Your task to perform on an android device: turn on the 24-hour format for clock Image 0: 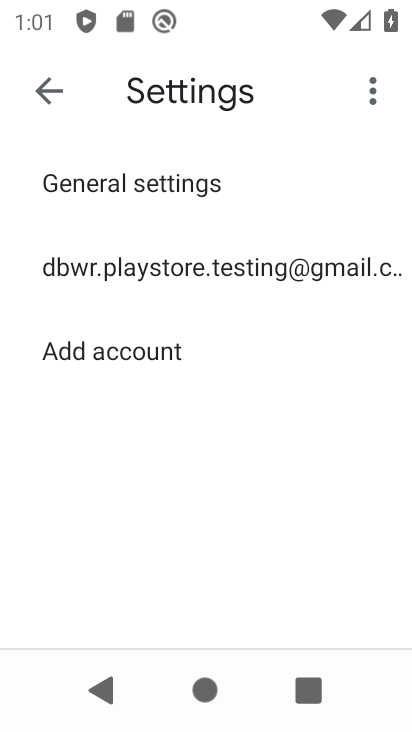
Step 0: press home button
Your task to perform on an android device: turn on the 24-hour format for clock Image 1: 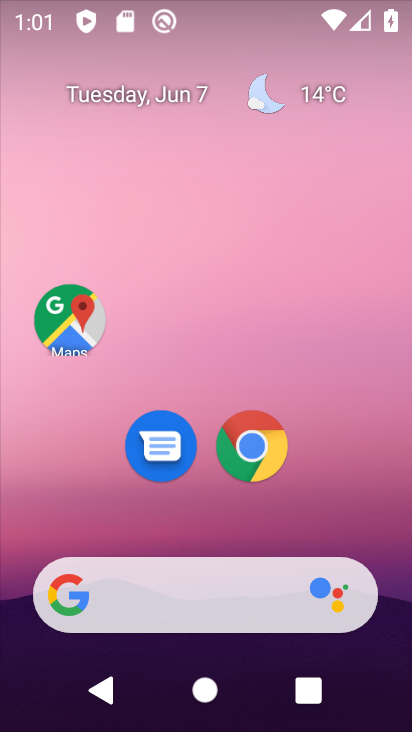
Step 1: drag from (377, 544) to (263, 92)
Your task to perform on an android device: turn on the 24-hour format for clock Image 2: 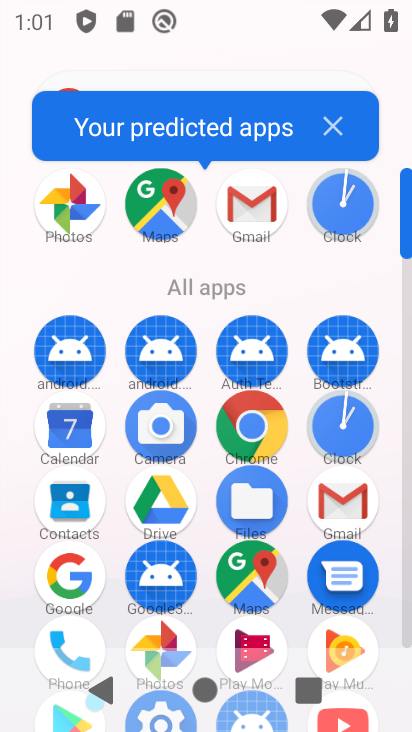
Step 2: click (353, 226)
Your task to perform on an android device: turn on the 24-hour format for clock Image 3: 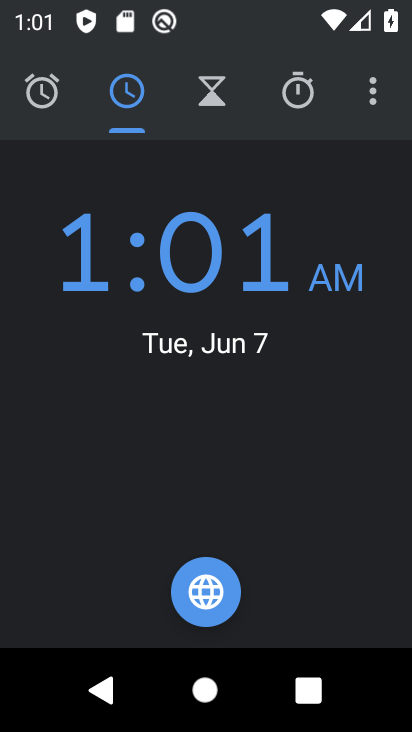
Step 3: click (380, 104)
Your task to perform on an android device: turn on the 24-hour format for clock Image 4: 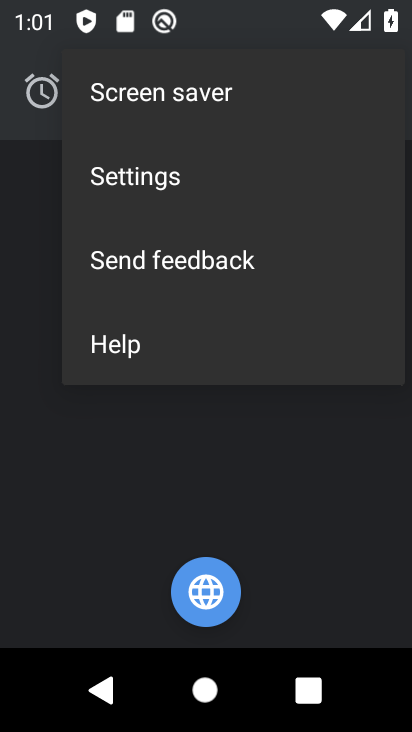
Step 4: click (295, 174)
Your task to perform on an android device: turn on the 24-hour format for clock Image 5: 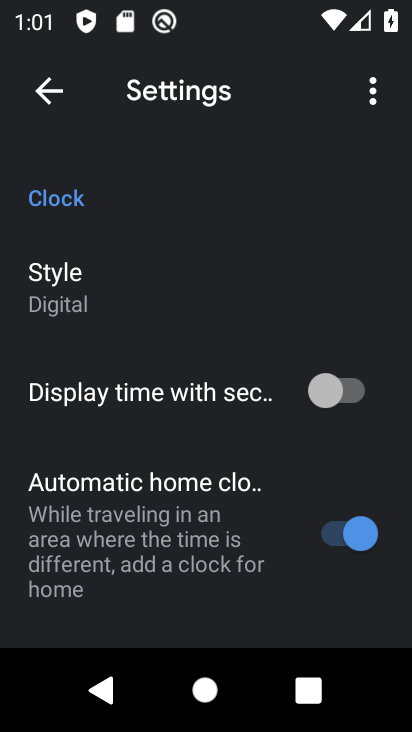
Step 5: drag from (276, 569) to (249, 141)
Your task to perform on an android device: turn on the 24-hour format for clock Image 6: 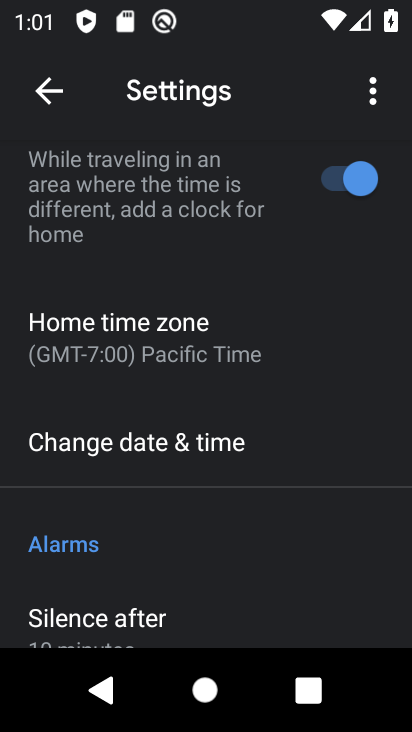
Step 6: click (254, 451)
Your task to perform on an android device: turn on the 24-hour format for clock Image 7: 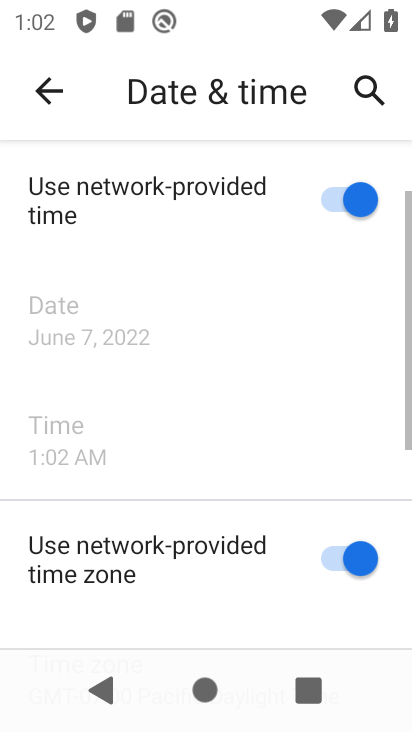
Step 7: drag from (277, 593) to (240, 310)
Your task to perform on an android device: turn on the 24-hour format for clock Image 8: 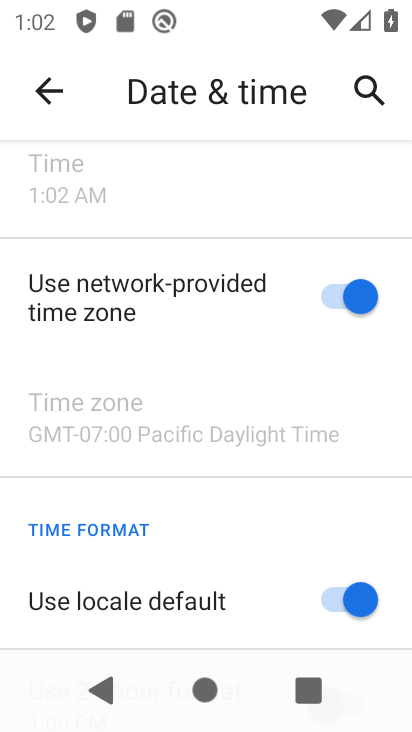
Step 8: drag from (246, 554) to (229, 313)
Your task to perform on an android device: turn on the 24-hour format for clock Image 9: 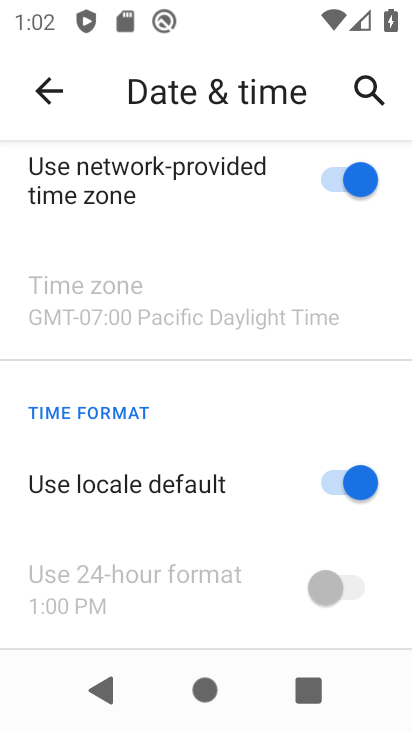
Step 9: click (338, 478)
Your task to perform on an android device: turn on the 24-hour format for clock Image 10: 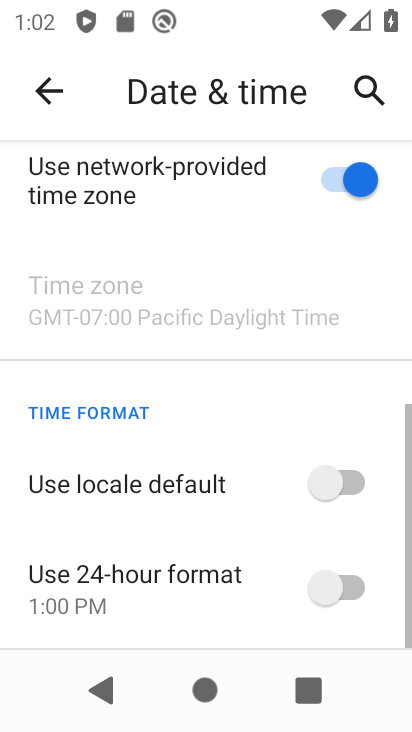
Step 10: click (342, 578)
Your task to perform on an android device: turn on the 24-hour format for clock Image 11: 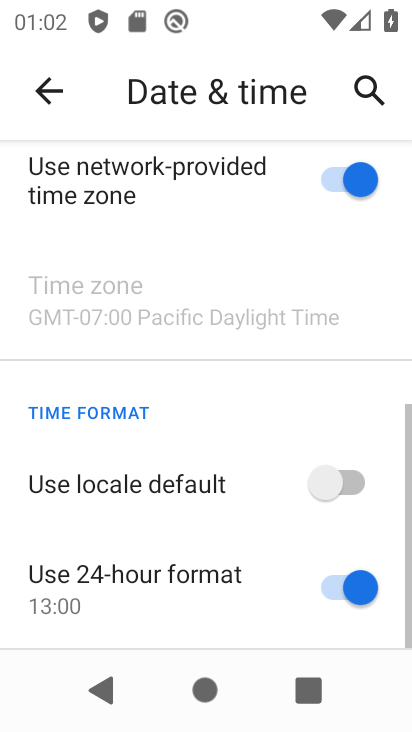
Step 11: task complete